Your task to perform on an android device: turn on javascript in the chrome app Image 0: 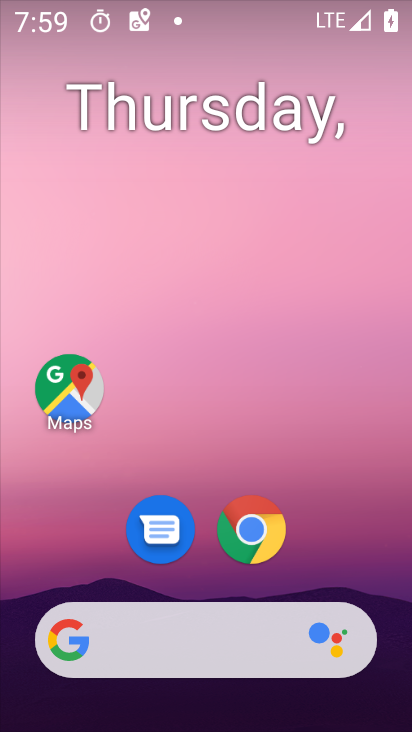
Step 0: drag from (365, 566) to (364, 218)
Your task to perform on an android device: turn on javascript in the chrome app Image 1: 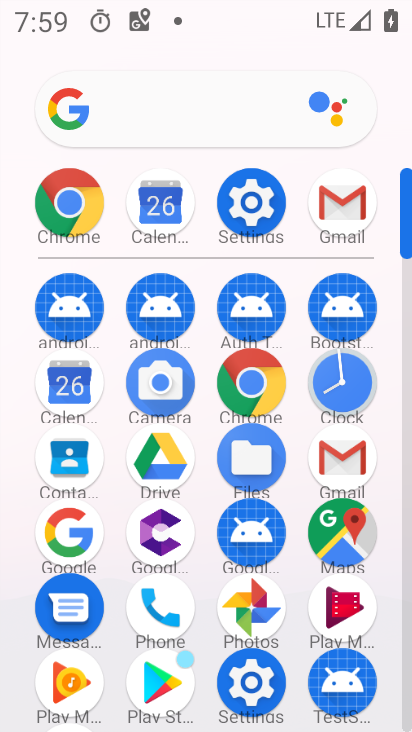
Step 1: click (273, 386)
Your task to perform on an android device: turn on javascript in the chrome app Image 2: 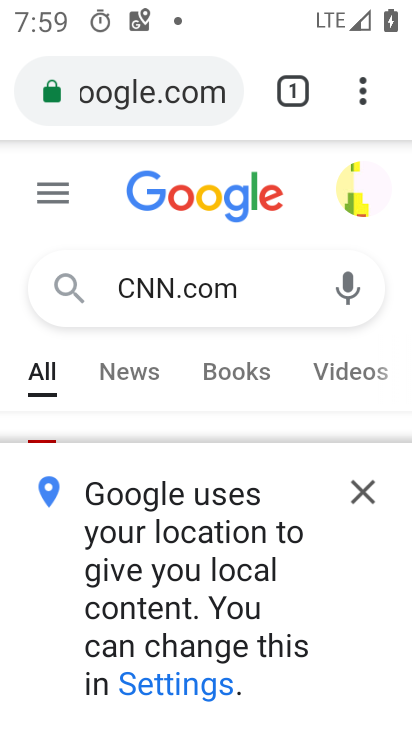
Step 2: click (362, 106)
Your task to perform on an android device: turn on javascript in the chrome app Image 3: 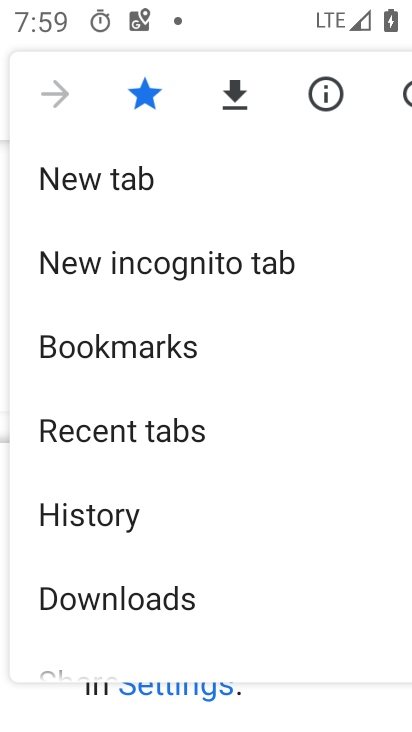
Step 3: drag from (325, 596) to (373, 283)
Your task to perform on an android device: turn on javascript in the chrome app Image 4: 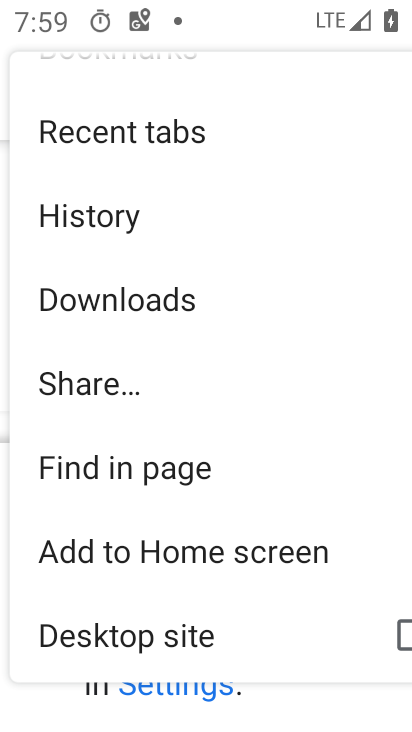
Step 4: drag from (366, 486) to (372, 176)
Your task to perform on an android device: turn on javascript in the chrome app Image 5: 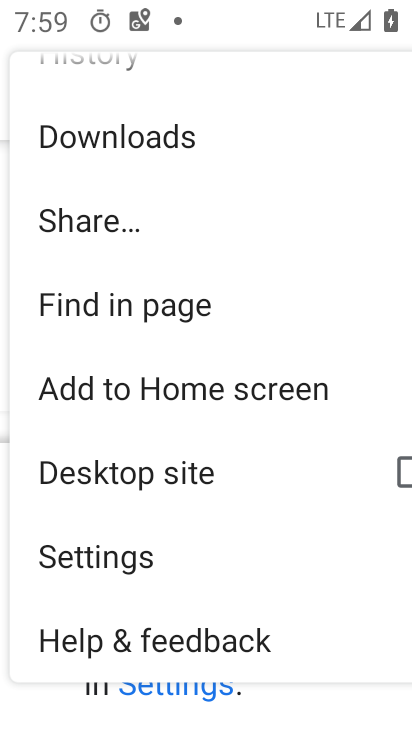
Step 5: drag from (346, 553) to (345, 316)
Your task to perform on an android device: turn on javascript in the chrome app Image 6: 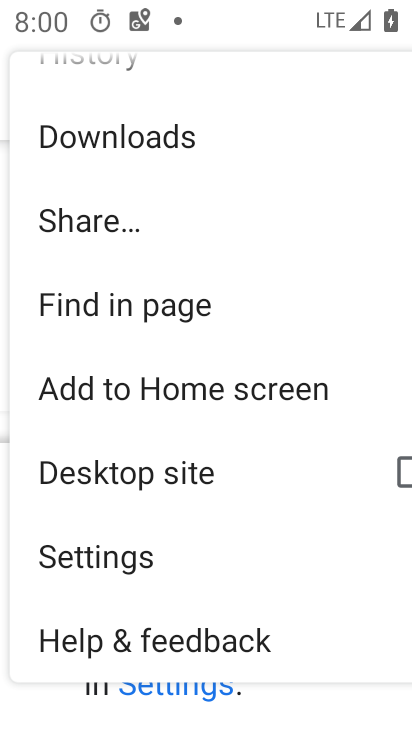
Step 6: click (186, 551)
Your task to perform on an android device: turn on javascript in the chrome app Image 7: 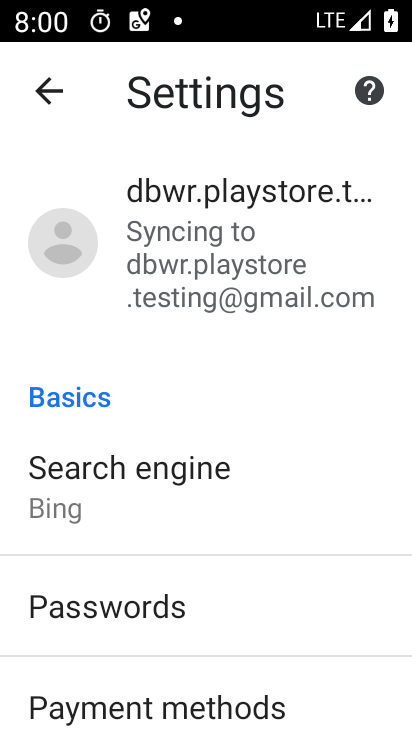
Step 7: drag from (310, 603) to (315, 472)
Your task to perform on an android device: turn on javascript in the chrome app Image 8: 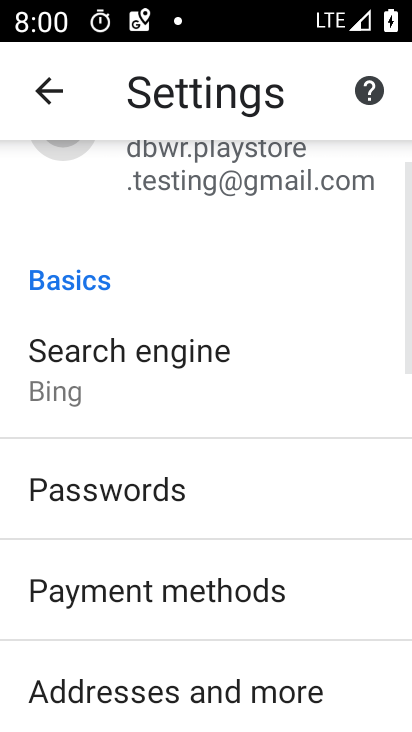
Step 8: drag from (327, 619) to (348, 444)
Your task to perform on an android device: turn on javascript in the chrome app Image 9: 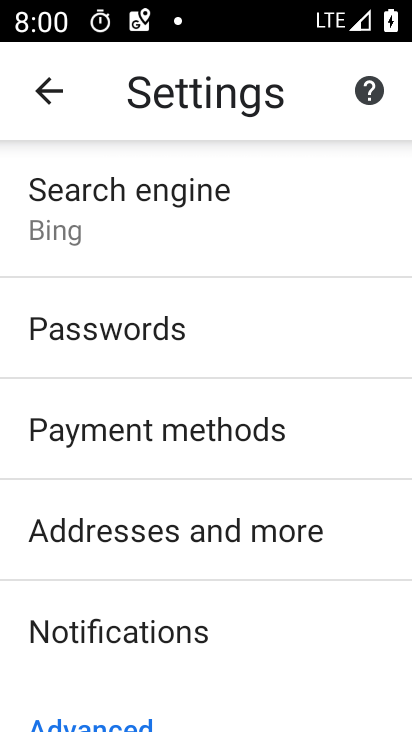
Step 9: drag from (358, 595) to (364, 408)
Your task to perform on an android device: turn on javascript in the chrome app Image 10: 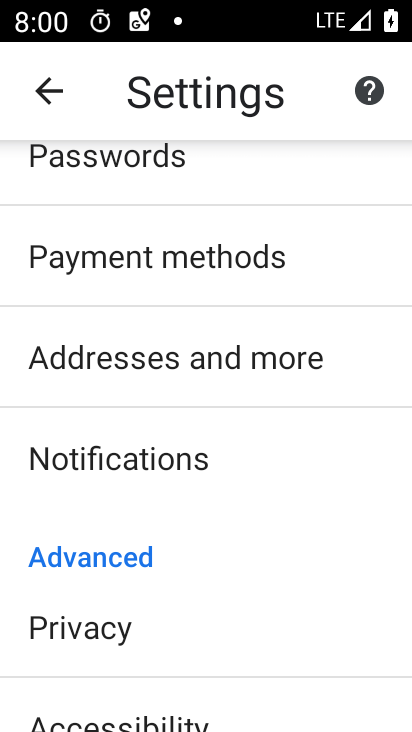
Step 10: drag from (349, 570) to (355, 437)
Your task to perform on an android device: turn on javascript in the chrome app Image 11: 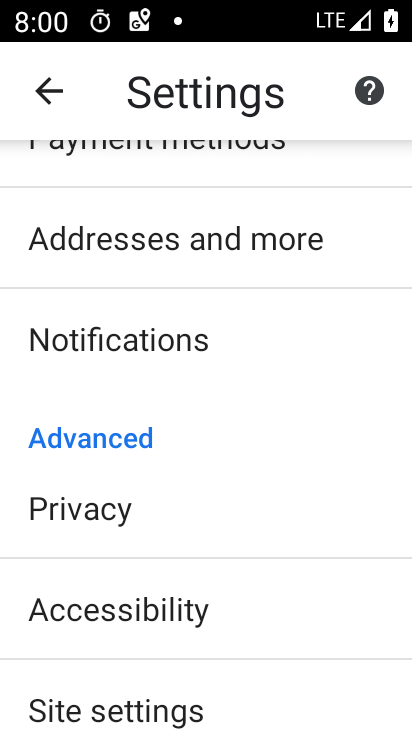
Step 11: drag from (349, 629) to (344, 486)
Your task to perform on an android device: turn on javascript in the chrome app Image 12: 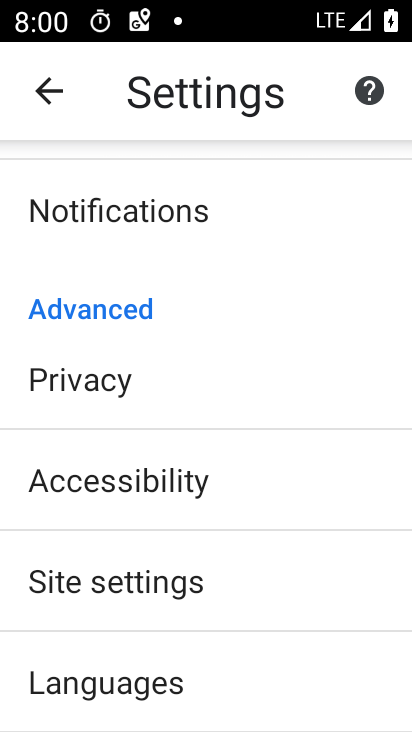
Step 12: click (254, 583)
Your task to perform on an android device: turn on javascript in the chrome app Image 13: 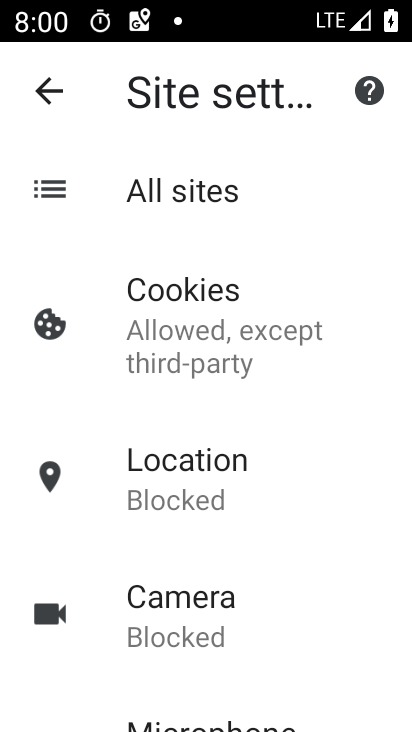
Step 13: drag from (321, 587) to (333, 488)
Your task to perform on an android device: turn on javascript in the chrome app Image 14: 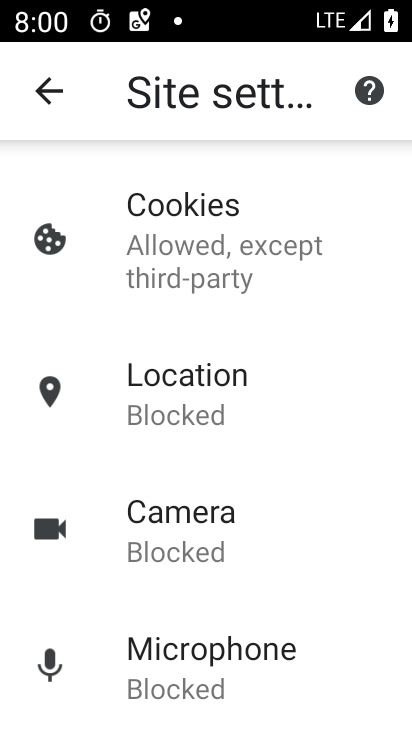
Step 14: drag from (350, 616) to (360, 364)
Your task to perform on an android device: turn on javascript in the chrome app Image 15: 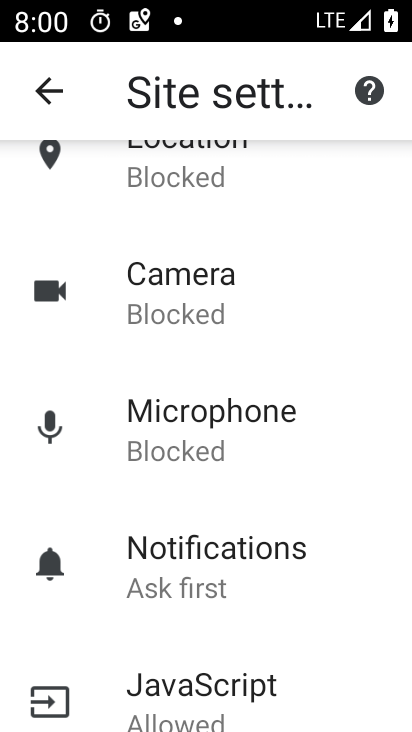
Step 15: drag from (366, 548) to (366, 366)
Your task to perform on an android device: turn on javascript in the chrome app Image 16: 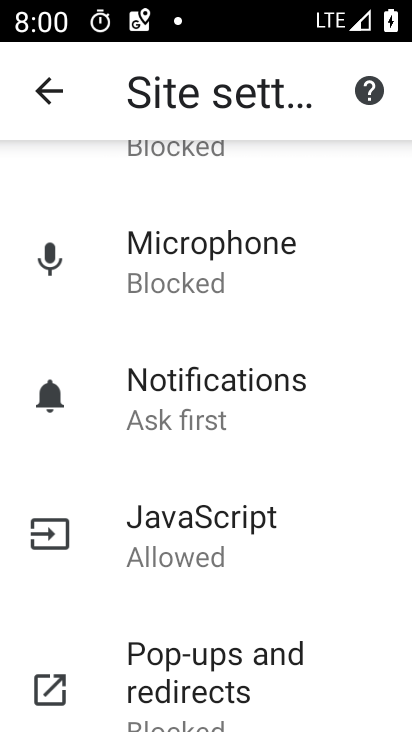
Step 16: drag from (371, 560) to (369, 398)
Your task to perform on an android device: turn on javascript in the chrome app Image 17: 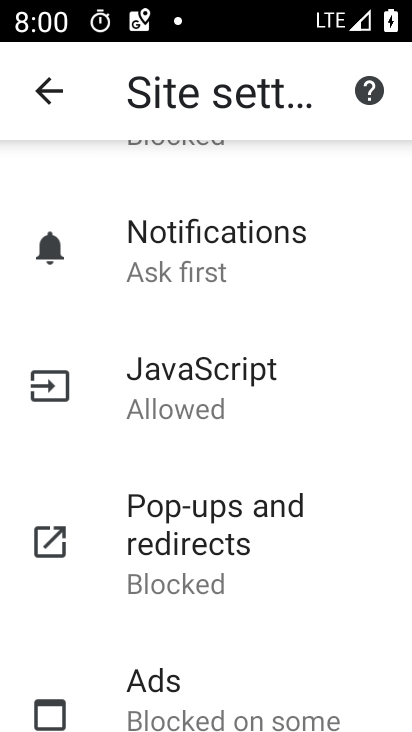
Step 17: click (264, 400)
Your task to perform on an android device: turn on javascript in the chrome app Image 18: 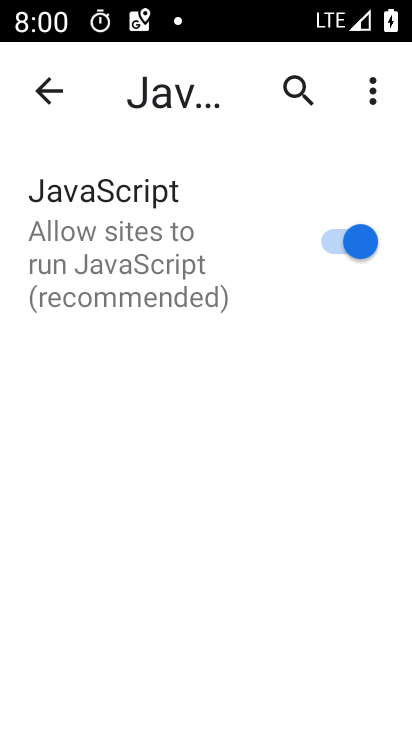
Step 18: task complete